Your task to perform on an android device: turn on sleep mode Image 0: 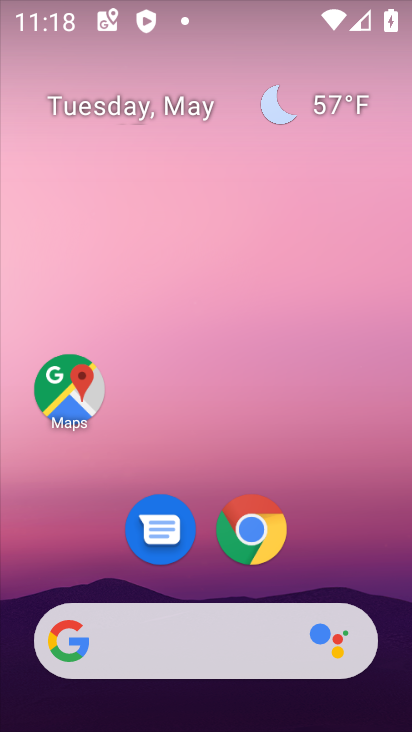
Step 0: drag from (200, 593) to (186, 148)
Your task to perform on an android device: turn on sleep mode Image 1: 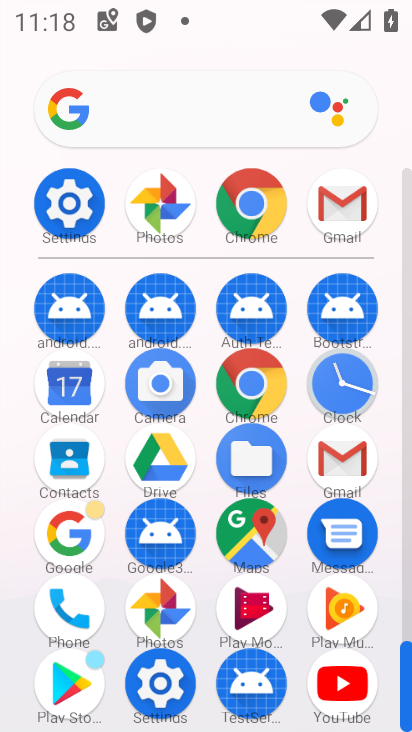
Step 1: click (37, 191)
Your task to perform on an android device: turn on sleep mode Image 2: 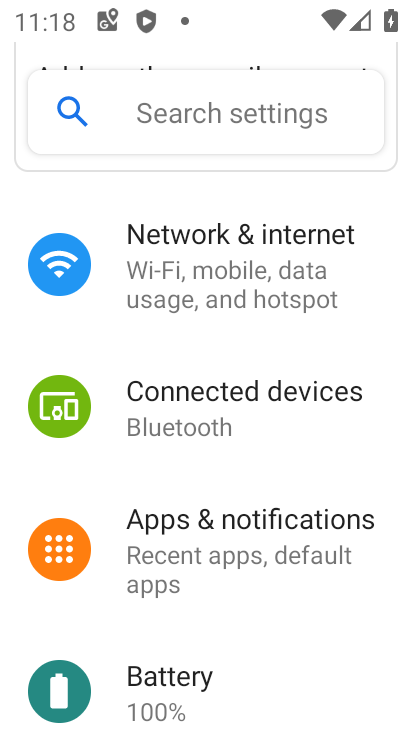
Step 2: task complete